Your task to perform on an android device: Go to accessibility settings Image 0: 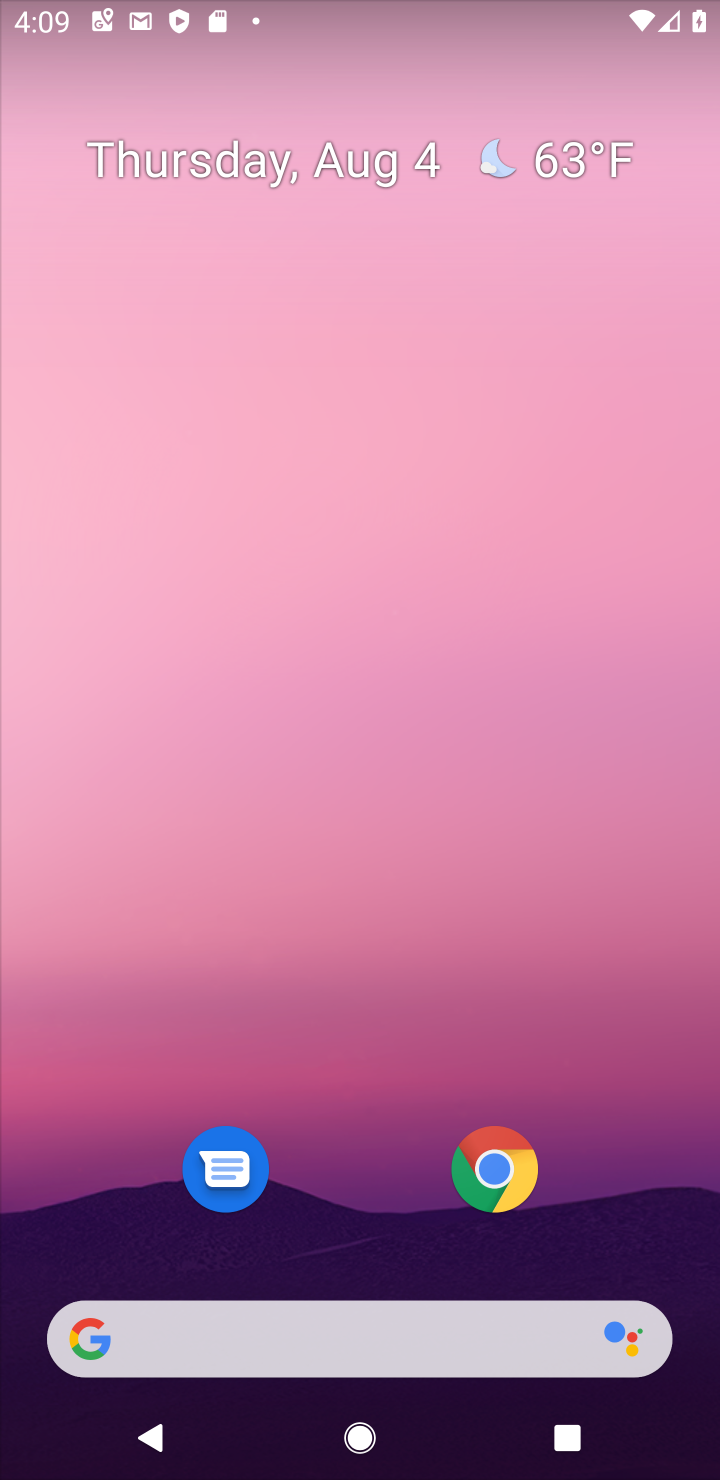
Step 0: drag from (341, 1241) to (377, 65)
Your task to perform on an android device: Go to accessibility settings Image 1: 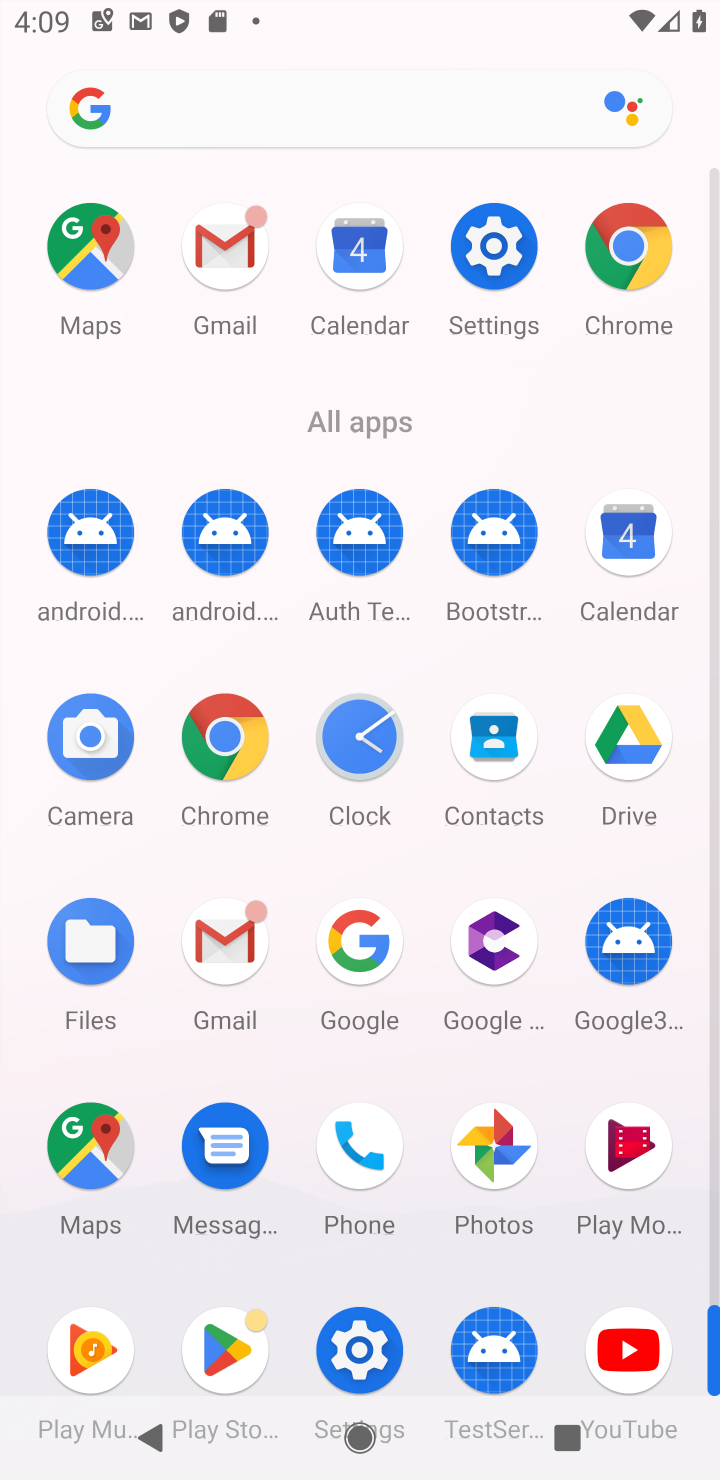
Step 1: click (496, 289)
Your task to perform on an android device: Go to accessibility settings Image 2: 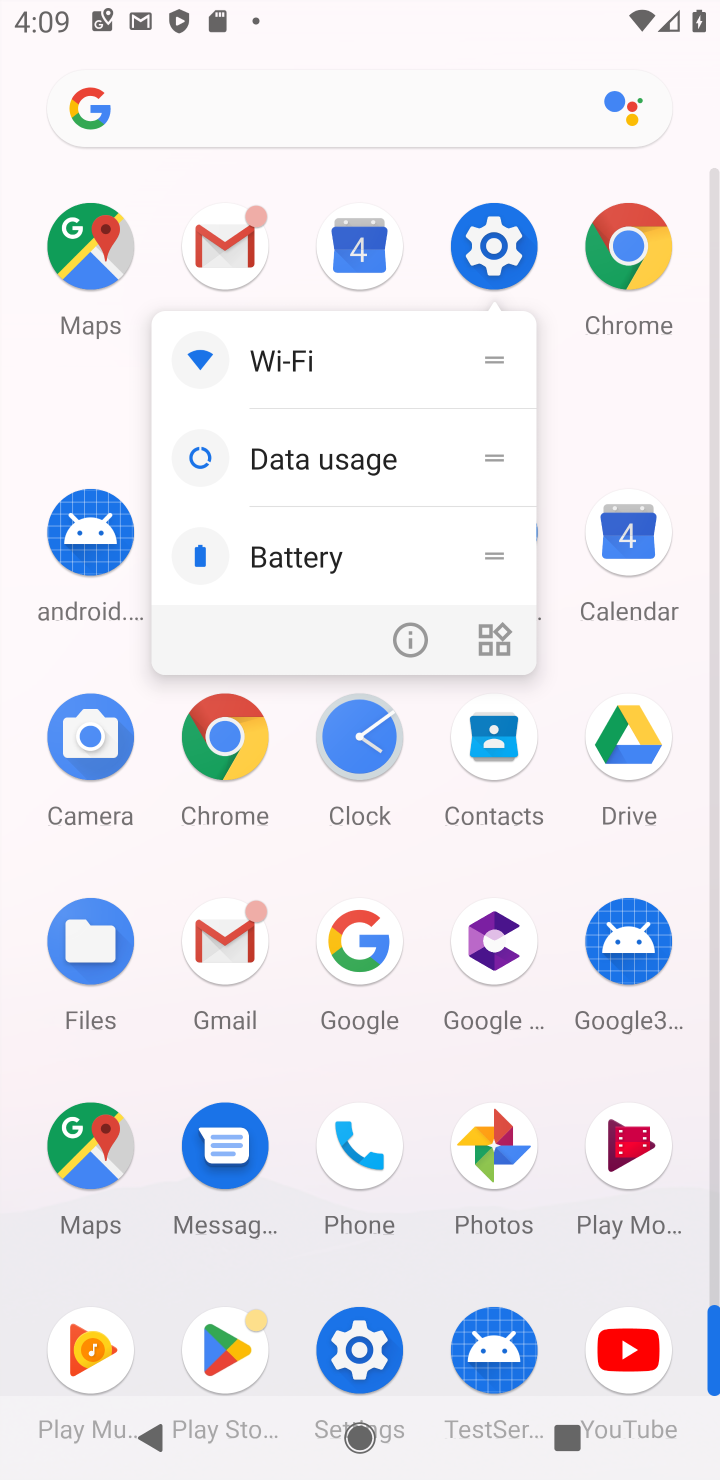
Step 2: click (490, 249)
Your task to perform on an android device: Go to accessibility settings Image 3: 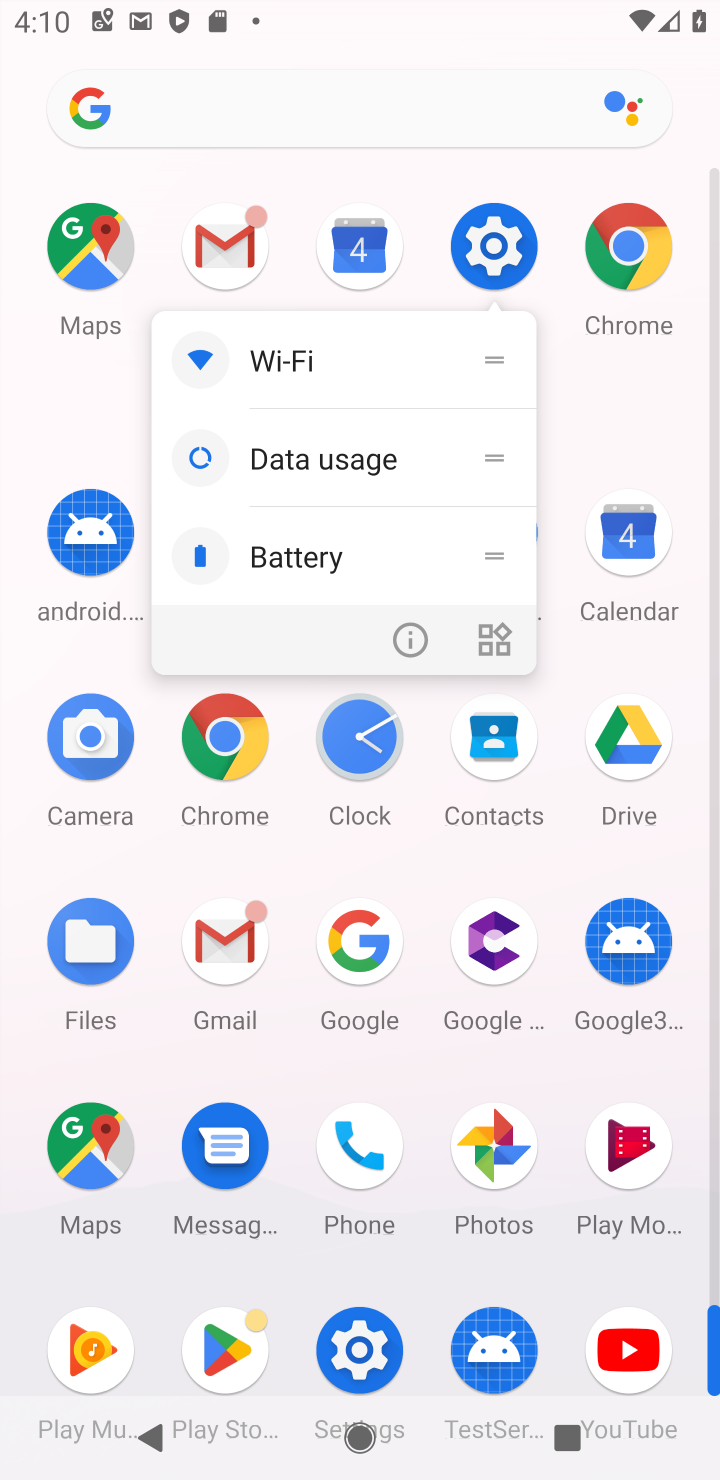
Step 3: click (490, 258)
Your task to perform on an android device: Go to accessibility settings Image 4: 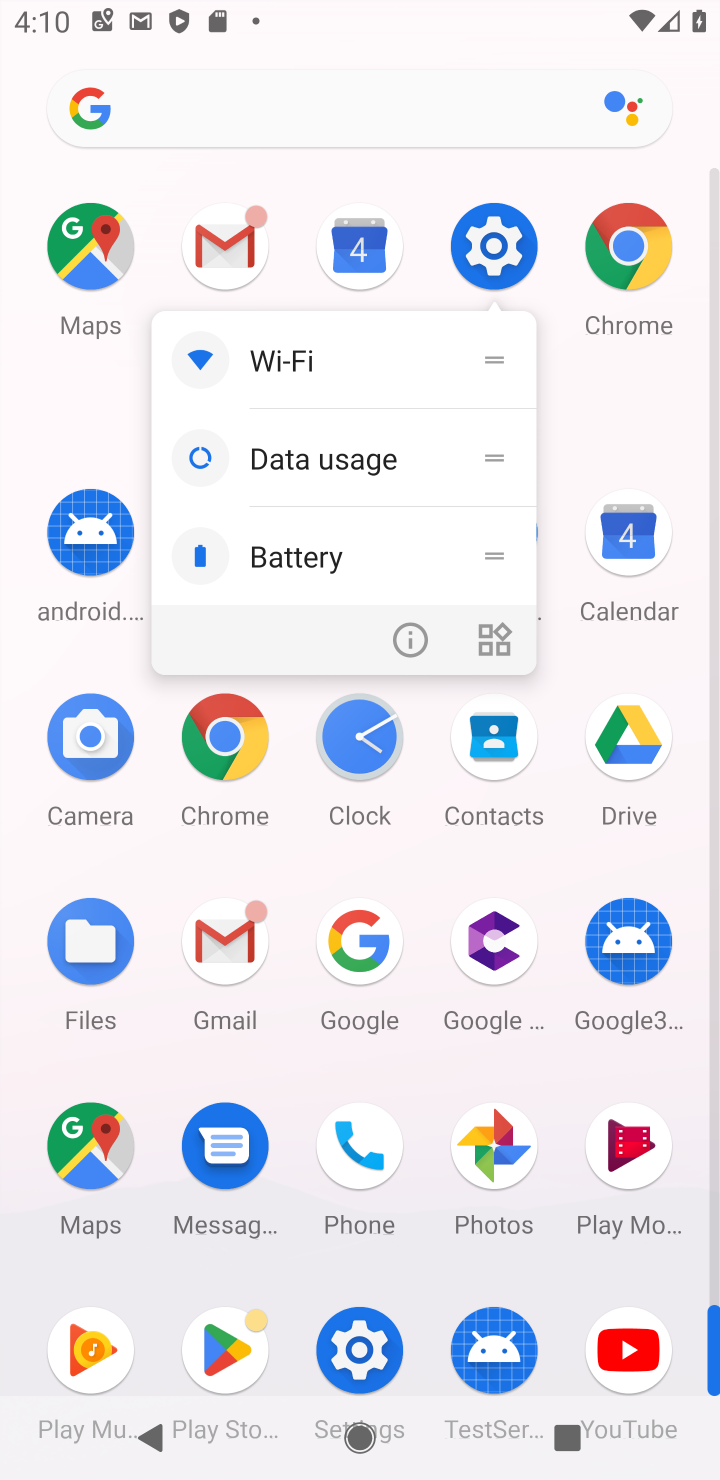
Step 4: click (521, 190)
Your task to perform on an android device: Go to accessibility settings Image 5: 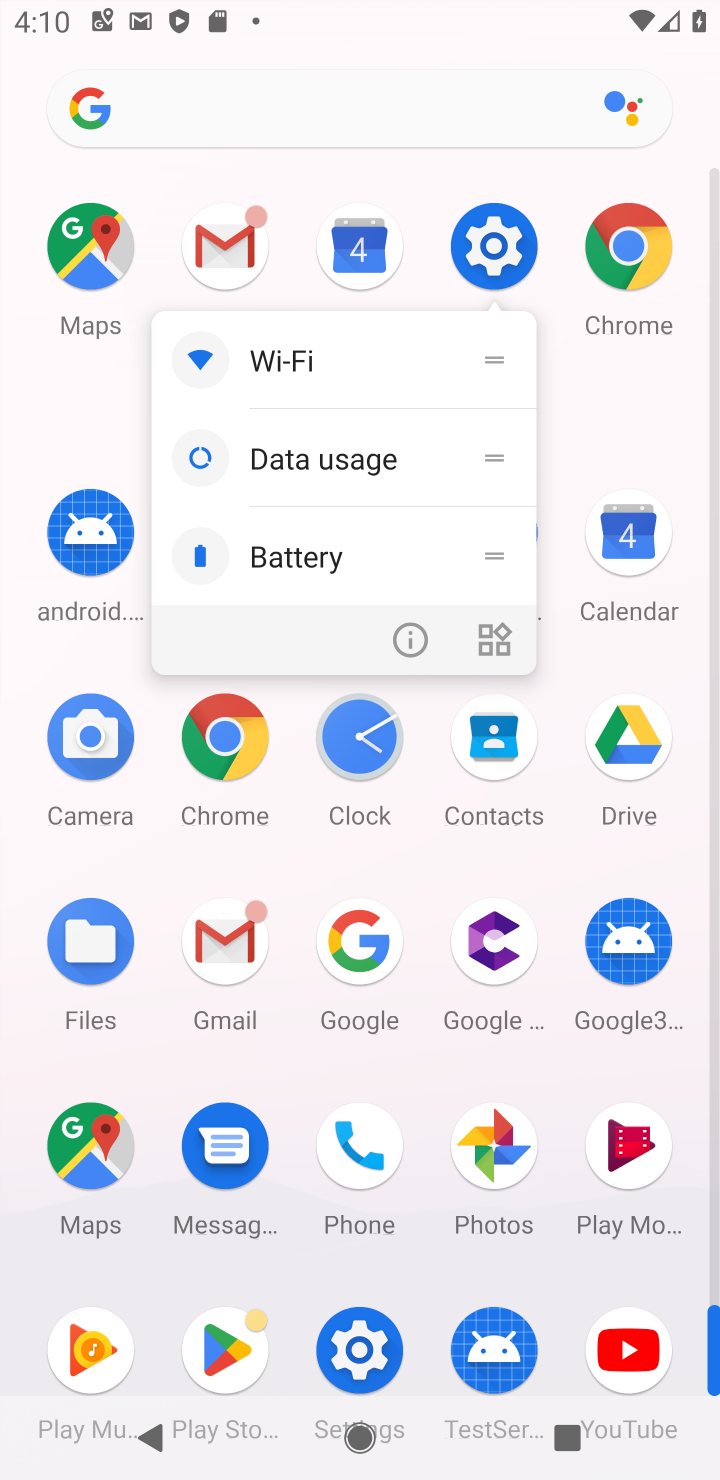
Step 5: click (509, 216)
Your task to perform on an android device: Go to accessibility settings Image 6: 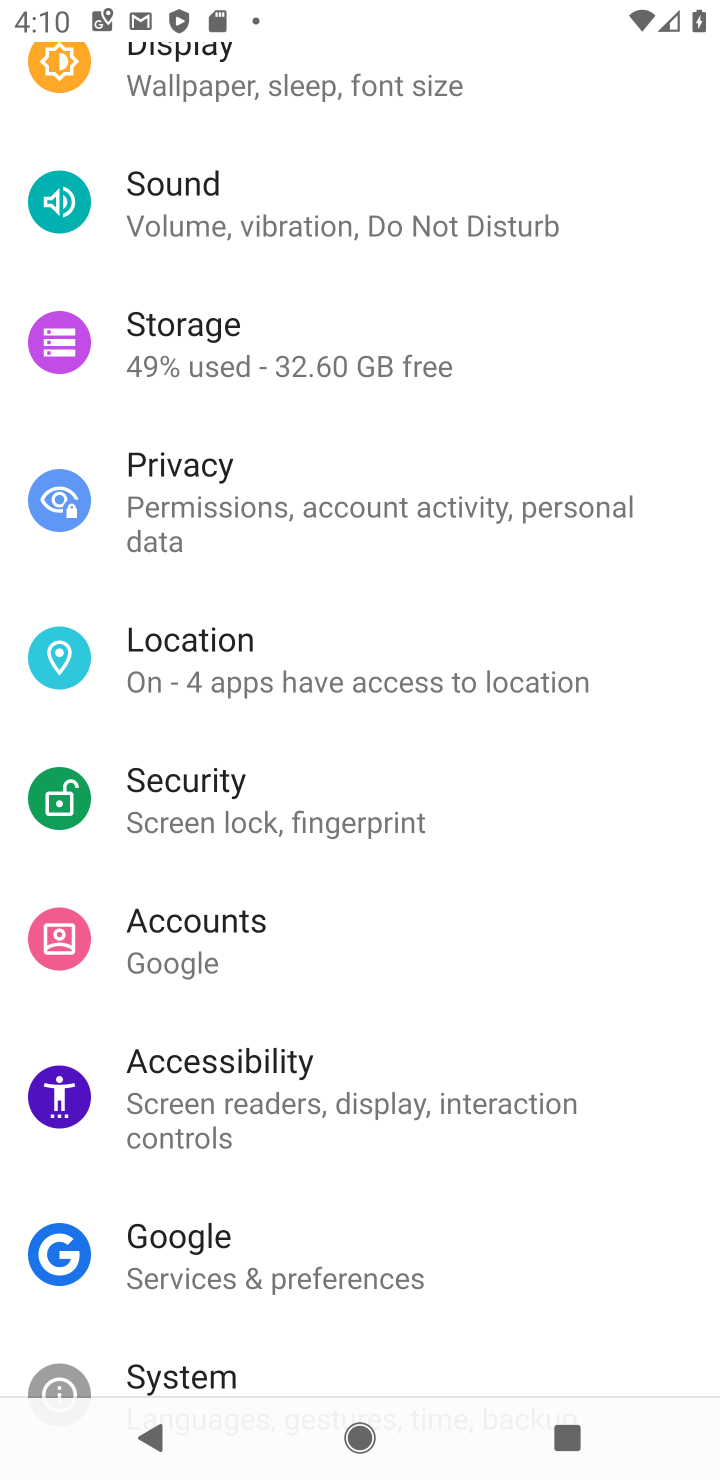
Step 6: click (276, 1094)
Your task to perform on an android device: Go to accessibility settings Image 7: 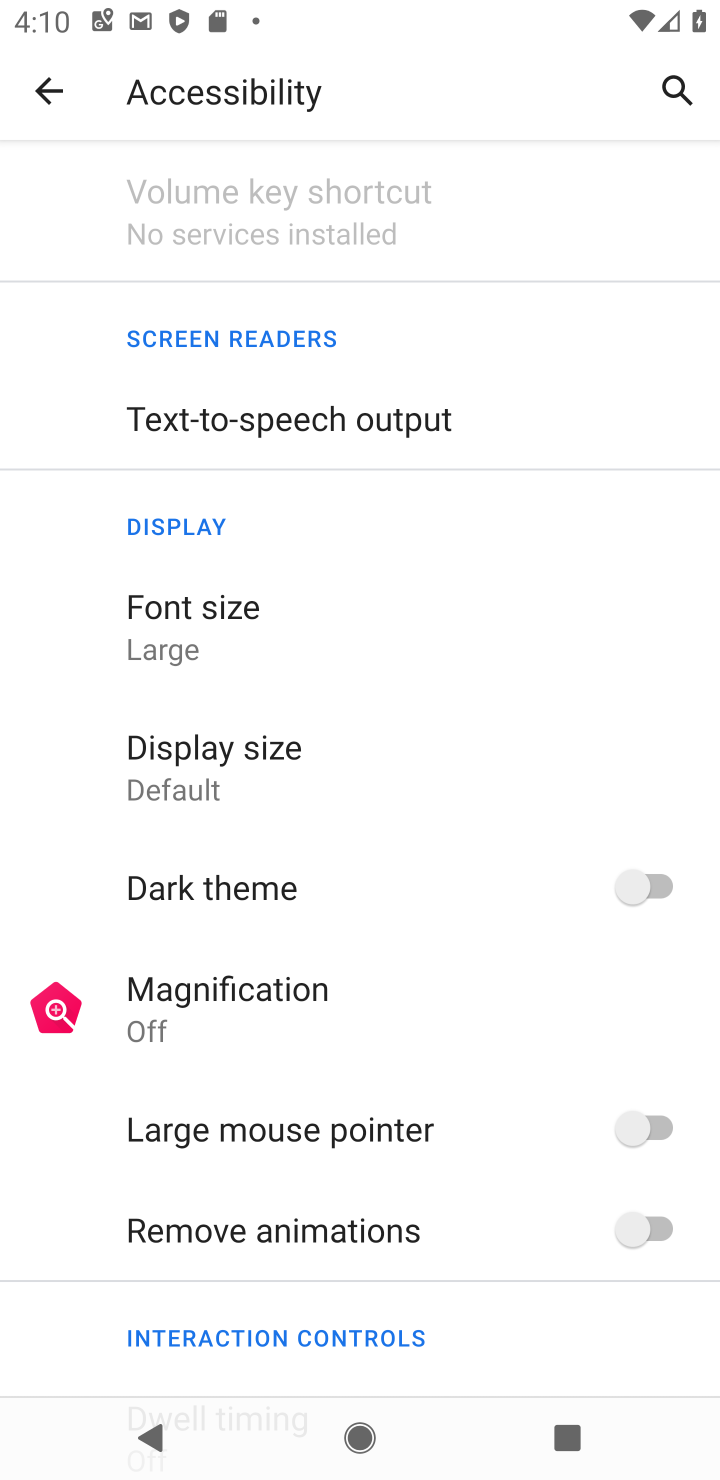
Step 7: task complete